Your task to perform on an android device: all mails in gmail Image 0: 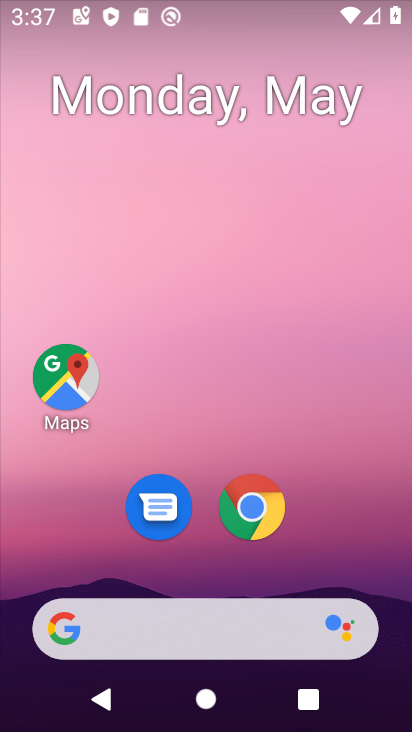
Step 0: drag from (191, 582) to (203, 259)
Your task to perform on an android device: all mails in gmail Image 1: 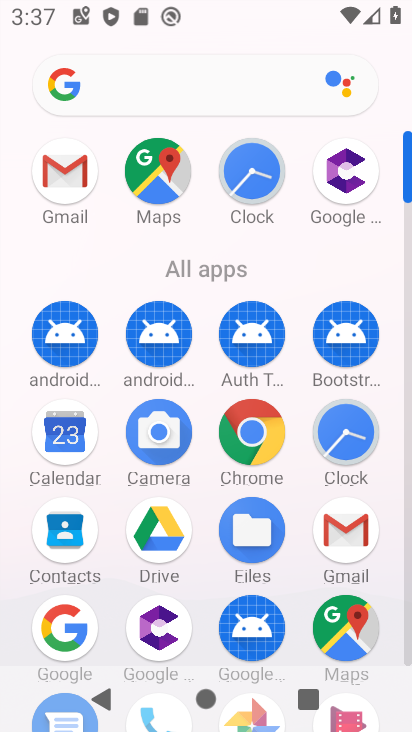
Step 1: click (63, 188)
Your task to perform on an android device: all mails in gmail Image 2: 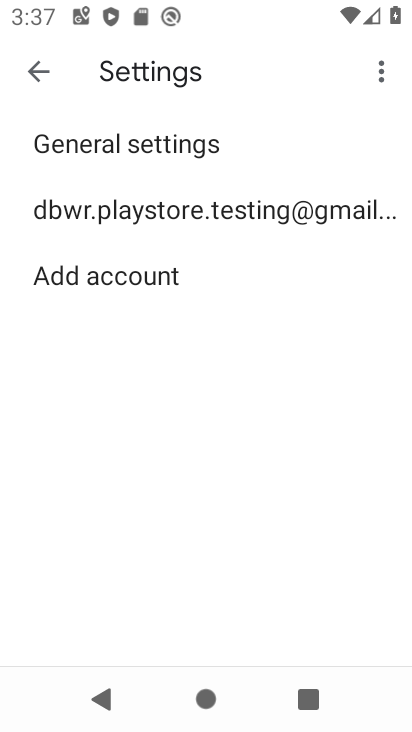
Step 2: click (51, 70)
Your task to perform on an android device: all mails in gmail Image 3: 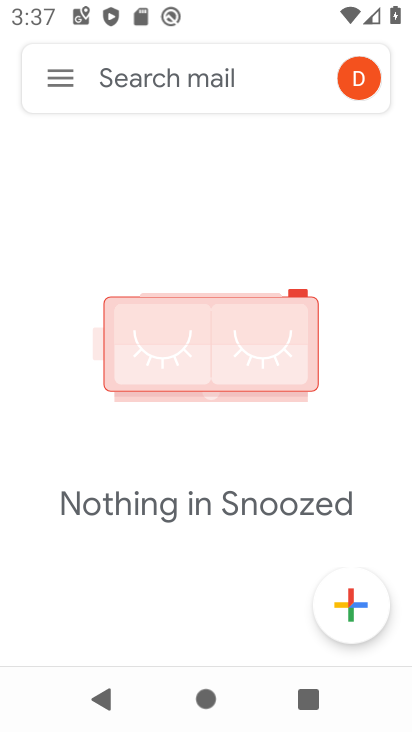
Step 3: click (51, 70)
Your task to perform on an android device: all mails in gmail Image 4: 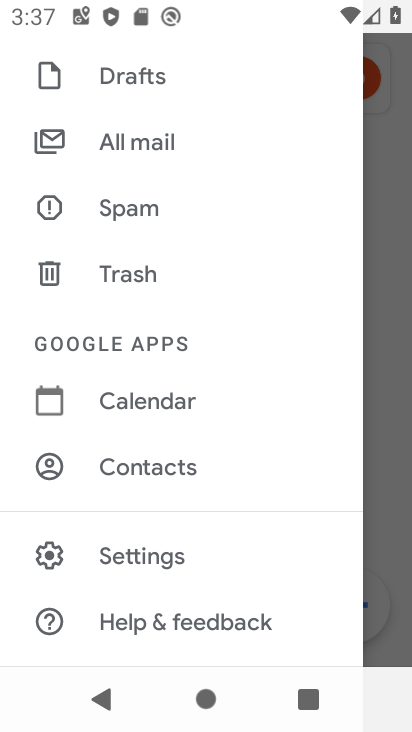
Step 4: click (135, 157)
Your task to perform on an android device: all mails in gmail Image 5: 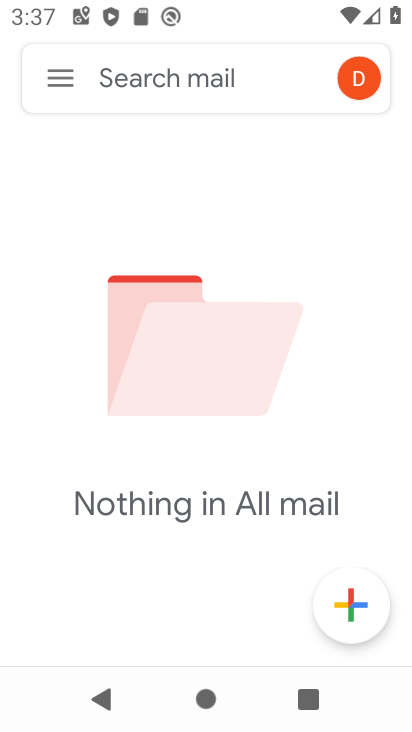
Step 5: task complete